Your task to perform on an android device: toggle sleep mode Image 0: 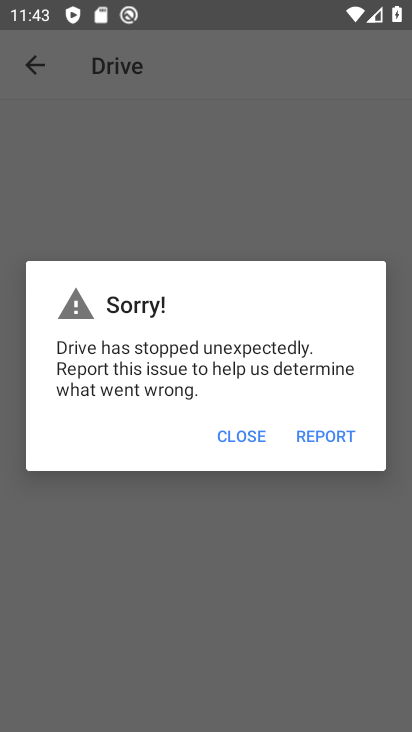
Step 0: press home button
Your task to perform on an android device: toggle sleep mode Image 1: 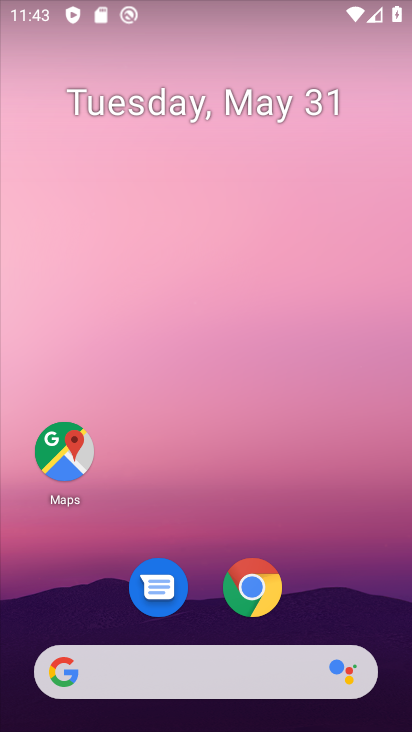
Step 1: drag from (347, 590) to (298, 137)
Your task to perform on an android device: toggle sleep mode Image 2: 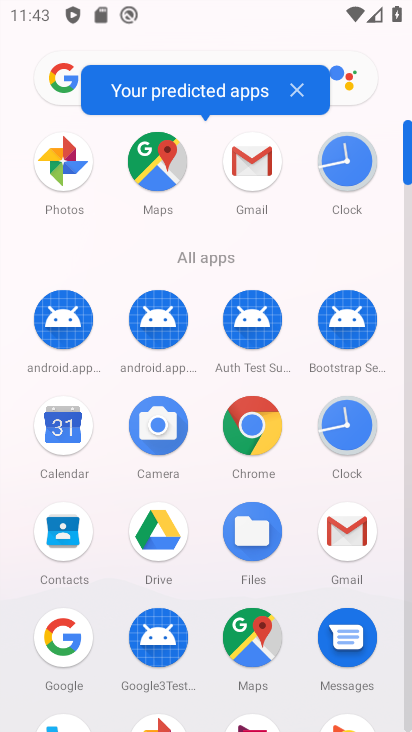
Step 2: click (408, 684)
Your task to perform on an android device: toggle sleep mode Image 3: 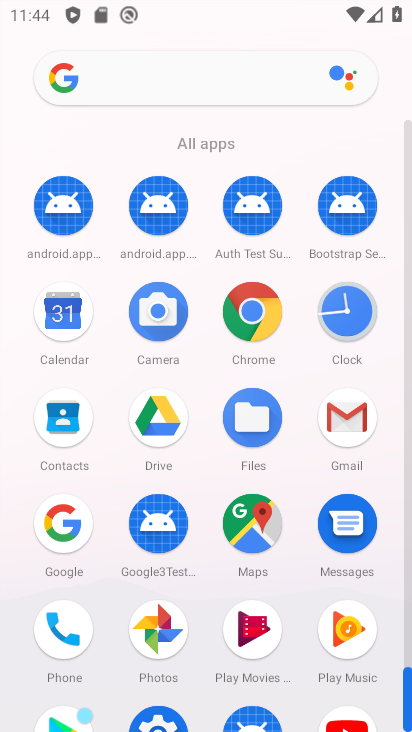
Step 3: click (165, 725)
Your task to perform on an android device: toggle sleep mode Image 4: 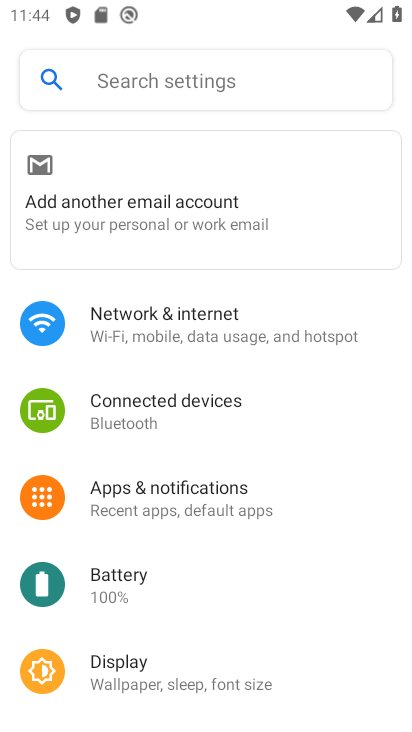
Step 4: click (177, 672)
Your task to perform on an android device: toggle sleep mode Image 5: 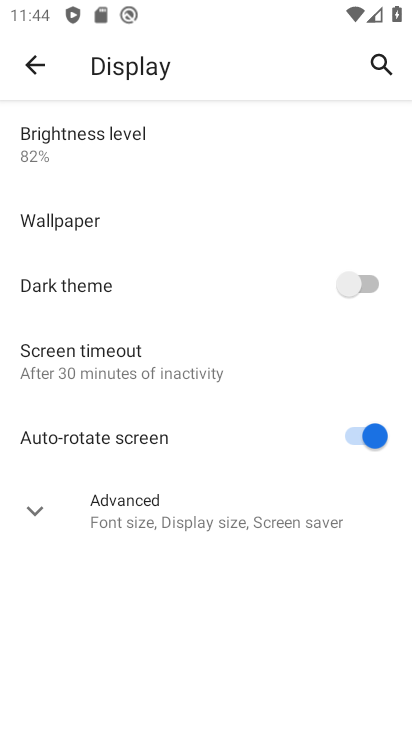
Step 5: click (330, 505)
Your task to perform on an android device: toggle sleep mode Image 6: 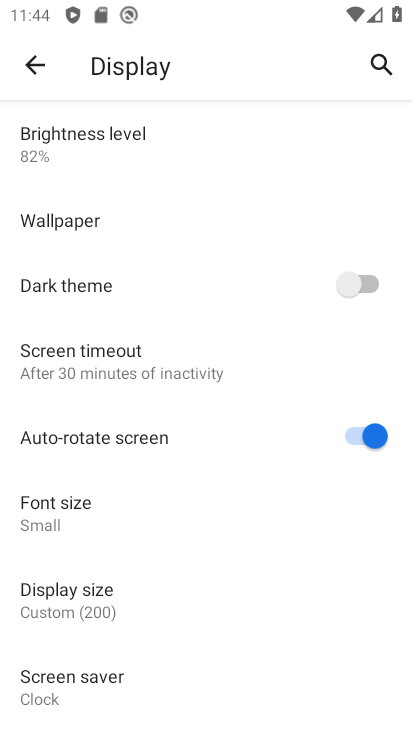
Step 6: task complete